Your task to perform on an android device: Go to Wikipedia Image 0: 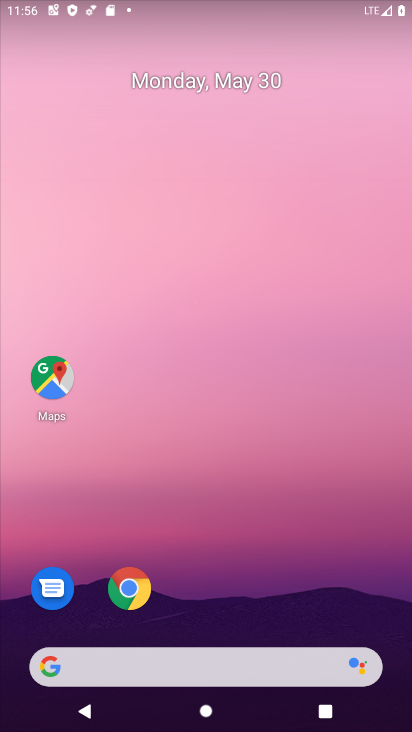
Step 0: press home button
Your task to perform on an android device: Go to Wikipedia Image 1: 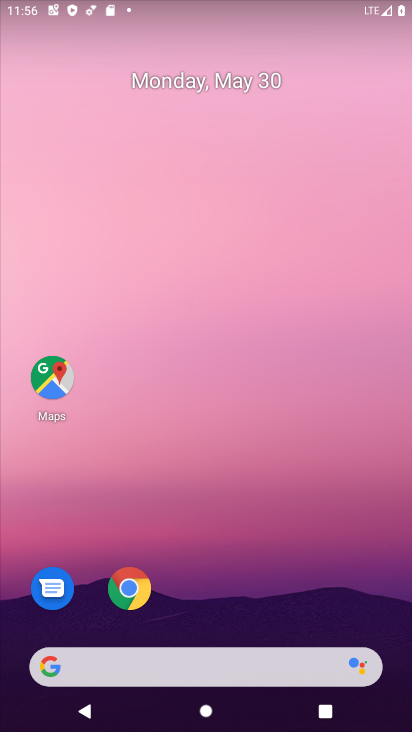
Step 1: click (130, 582)
Your task to perform on an android device: Go to Wikipedia Image 2: 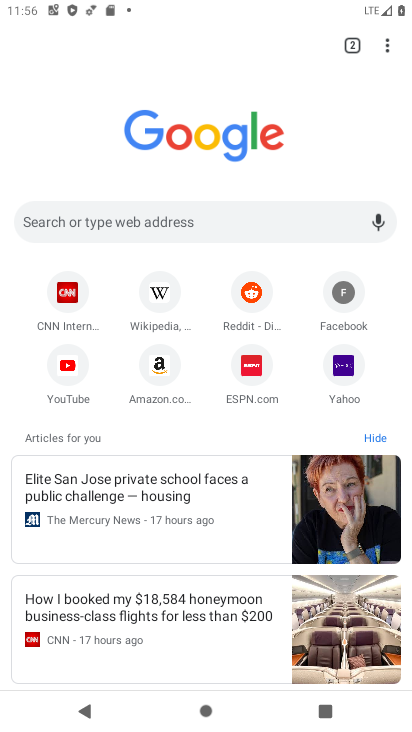
Step 2: click (157, 285)
Your task to perform on an android device: Go to Wikipedia Image 3: 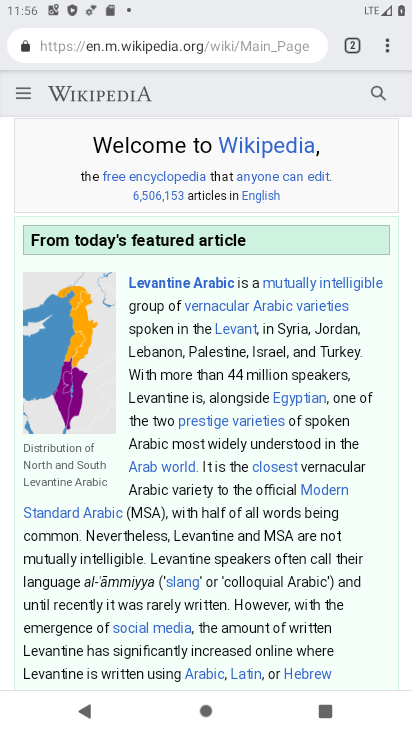
Step 3: task complete